Your task to perform on an android device: Do I have any events this weekend? Image 0: 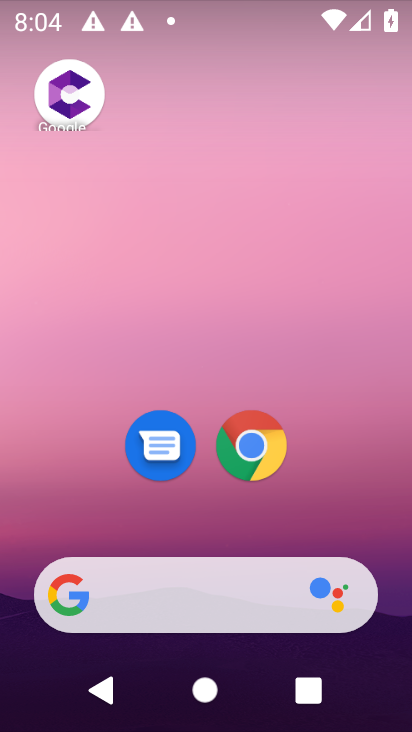
Step 0: press home button
Your task to perform on an android device: Do I have any events this weekend? Image 1: 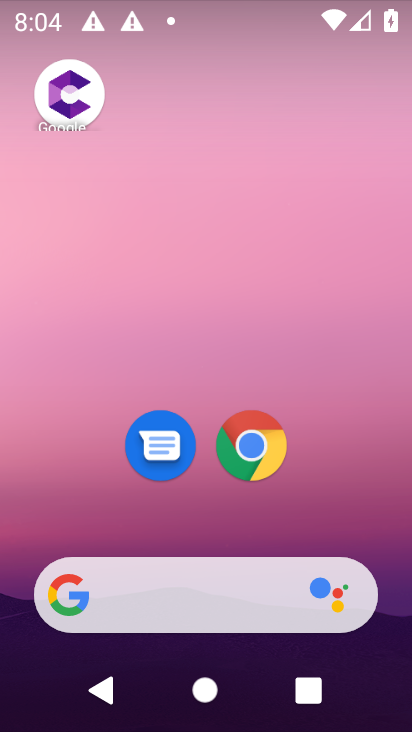
Step 1: drag from (13, 290) to (407, 313)
Your task to perform on an android device: Do I have any events this weekend? Image 2: 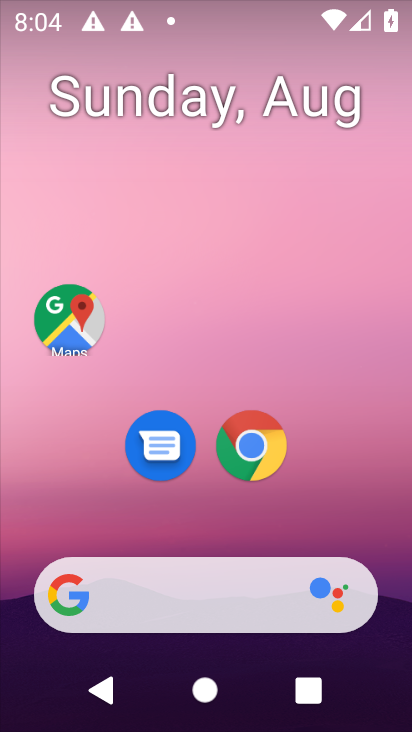
Step 2: drag from (41, 208) to (410, 246)
Your task to perform on an android device: Do I have any events this weekend? Image 3: 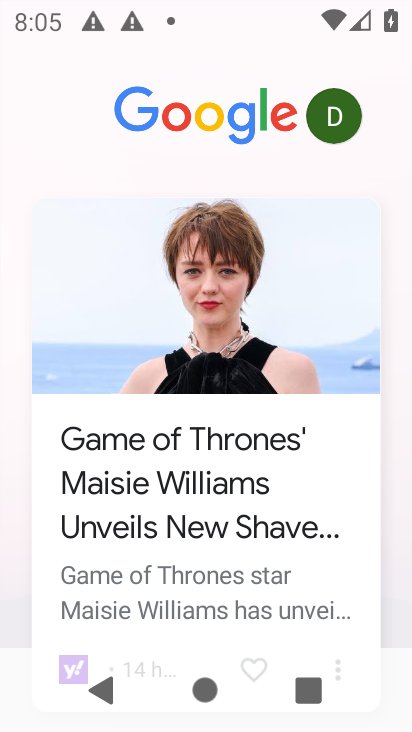
Step 3: press home button
Your task to perform on an android device: Do I have any events this weekend? Image 4: 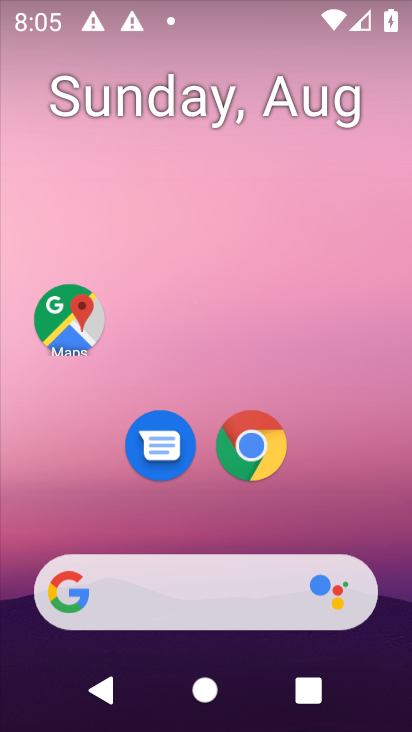
Step 4: drag from (194, 524) to (204, 62)
Your task to perform on an android device: Do I have any events this weekend? Image 5: 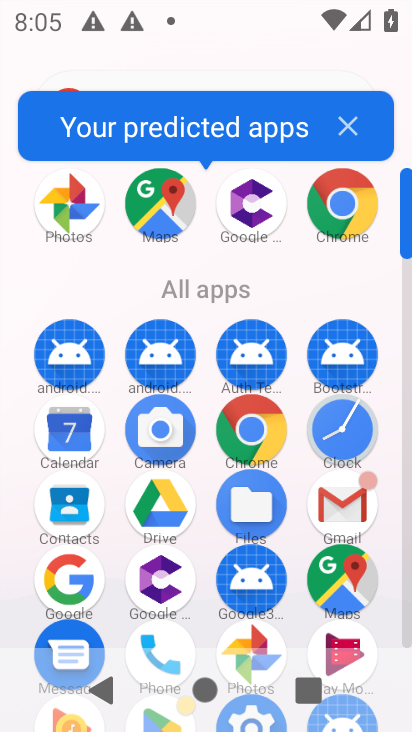
Step 5: click (66, 432)
Your task to perform on an android device: Do I have any events this weekend? Image 6: 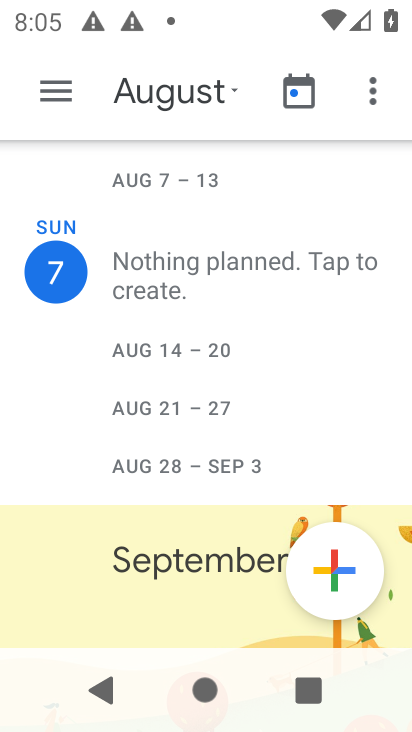
Step 6: click (59, 89)
Your task to perform on an android device: Do I have any events this weekend? Image 7: 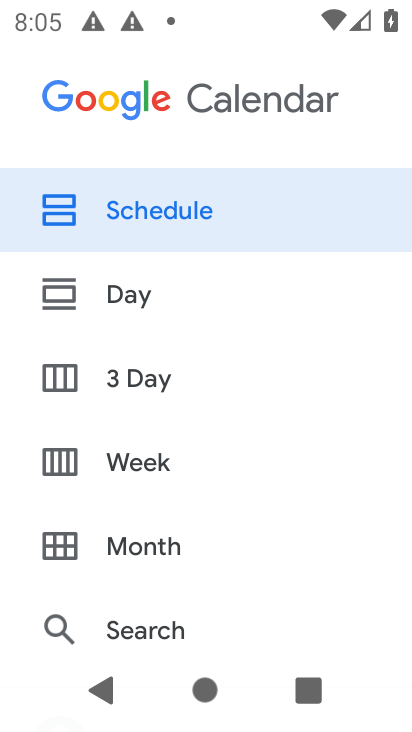
Step 7: click (103, 463)
Your task to perform on an android device: Do I have any events this weekend? Image 8: 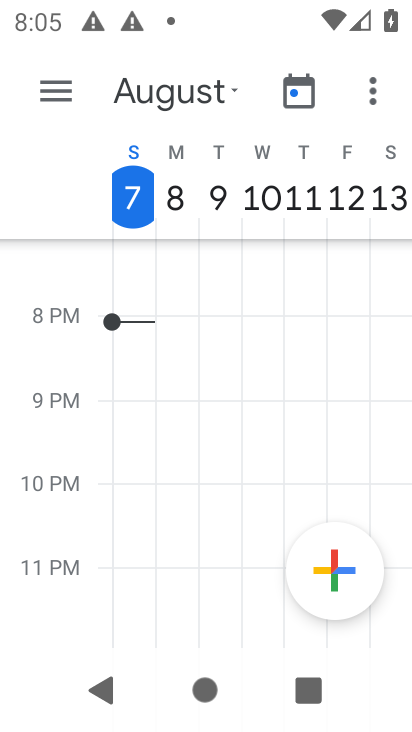
Step 8: click (47, 105)
Your task to perform on an android device: Do I have any events this weekend? Image 9: 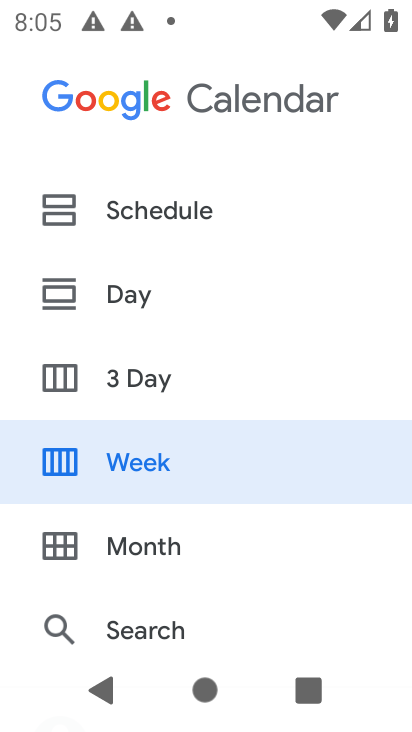
Step 9: drag from (147, 583) to (179, 138)
Your task to perform on an android device: Do I have any events this weekend? Image 10: 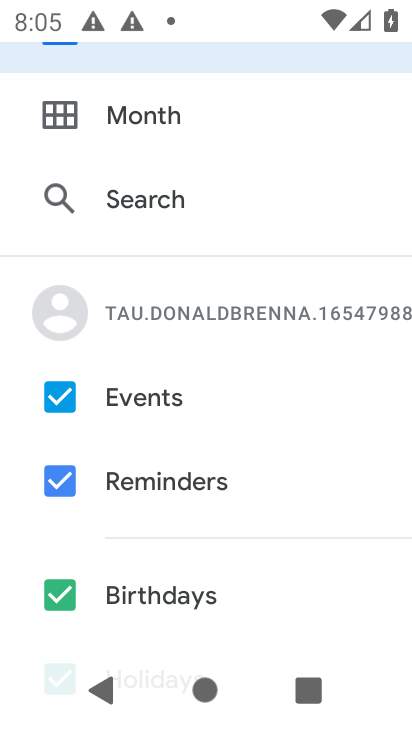
Step 10: drag from (152, 527) to (155, 307)
Your task to perform on an android device: Do I have any events this weekend? Image 11: 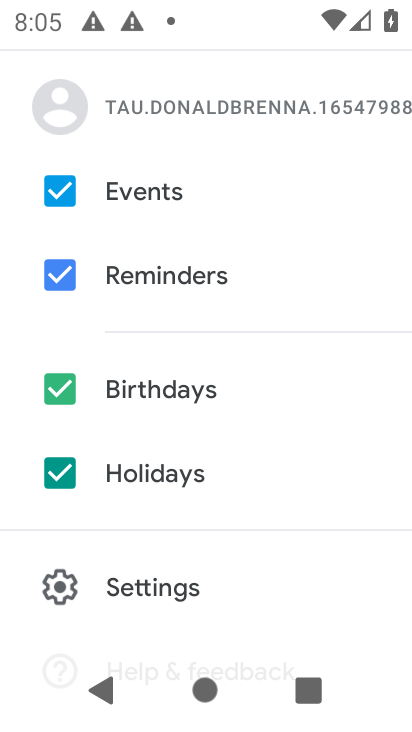
Step 11: click (54, 270)
Your task to perform on an android device: Do I have any events this weekend? Image 12: 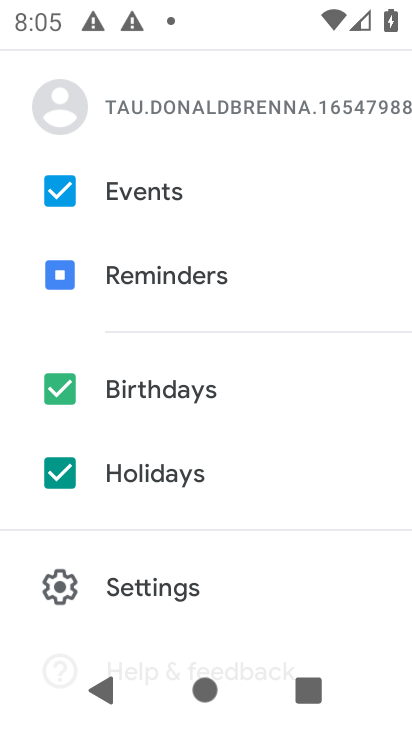
Step 12: click (60, 387)
Your task to perform on an android device: Do I have any events this weekend? Image 13: 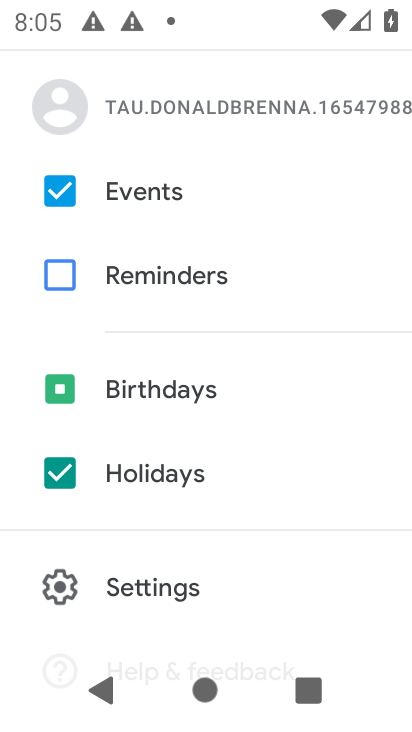
Step 13: click (62, 464)
Your task to perform on an android device: Do I have any events this weekend? Image 14: 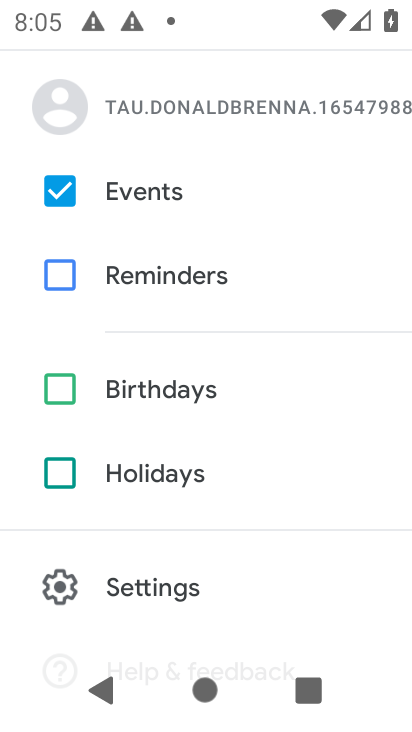
Step 14: drag from (169, 130) to (180, 653)
Your task to perform on an android device: Do I have any events this weekend? Image 15: 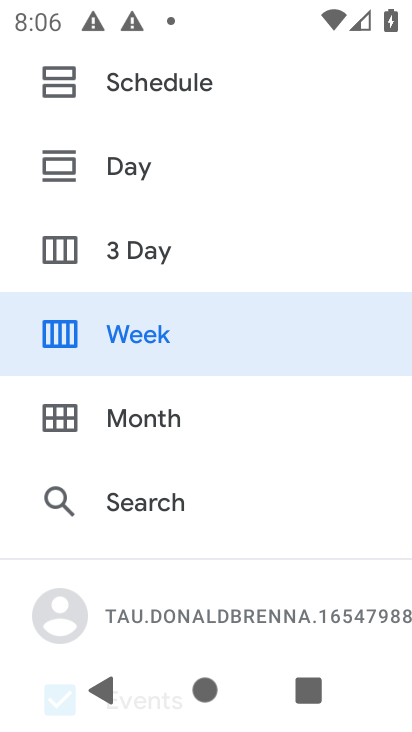
Step 15: click (82, 85)
Your task to perform on an android device: Do I have any events this weekend? Image 16: 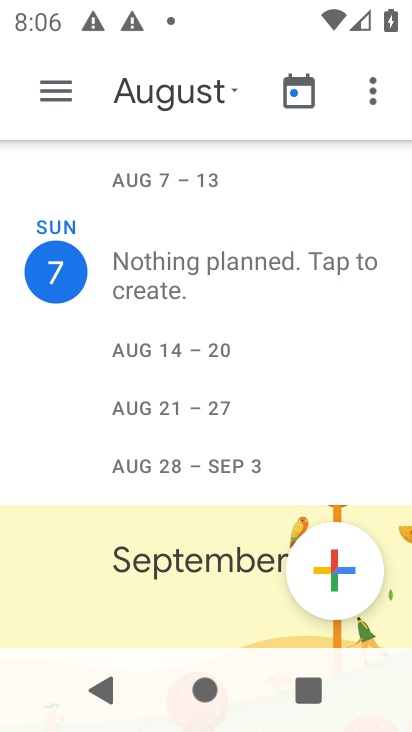
Step 16: task complete